Your task to perform on an android device: Go to location settings Image 0: 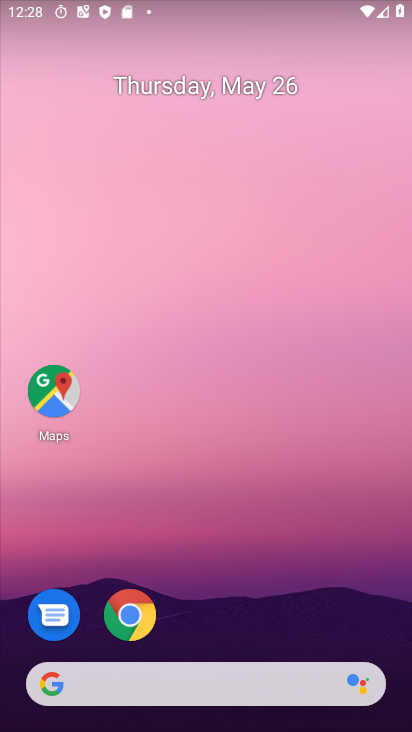
Step 0: drag from (240, 621) to (181, 235)
Your task to perform on an android device: Go to location settings Image 1: 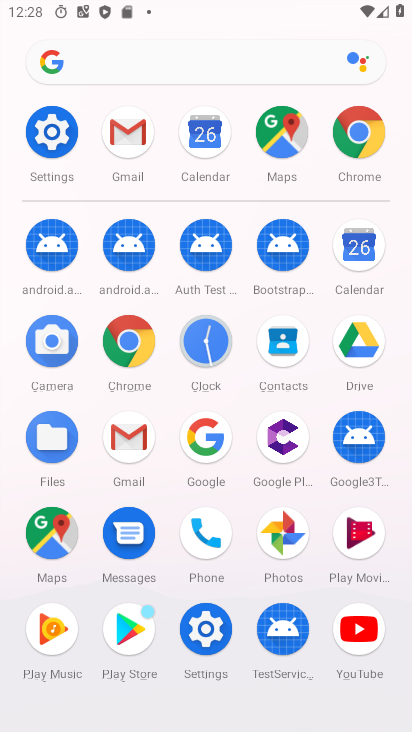
Step 1: click (46, 136)
Your task to perform on an android device: Go to location settings Image 2: 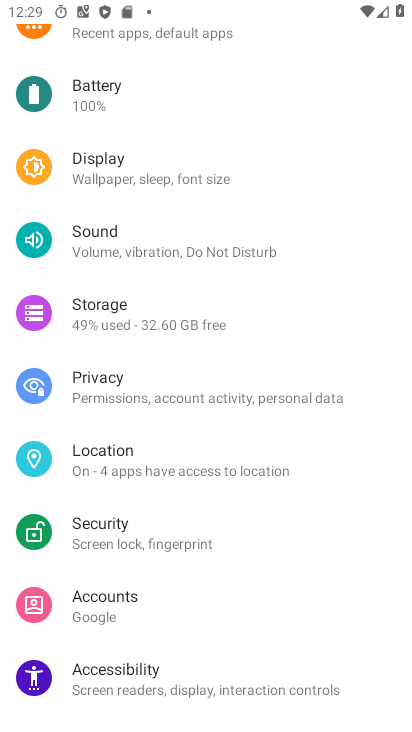
Step 2: click (127, 464)
Your task to perform on an android device: Go to location settings Image 3: 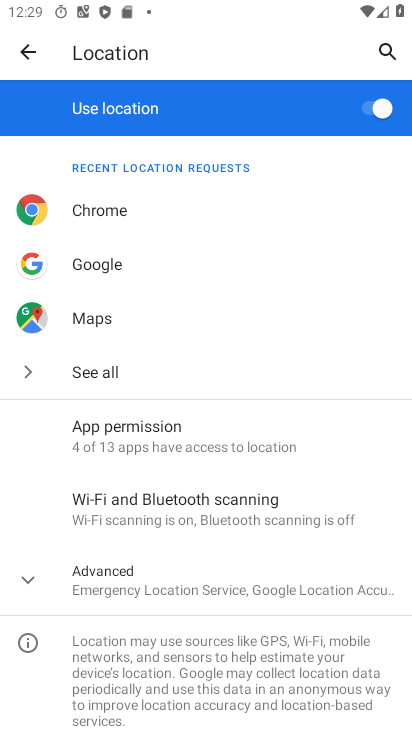
Step 3: task complete